Your task to perform on an android device: install app "TextNow: Call + Text Unlimited" Image 0: 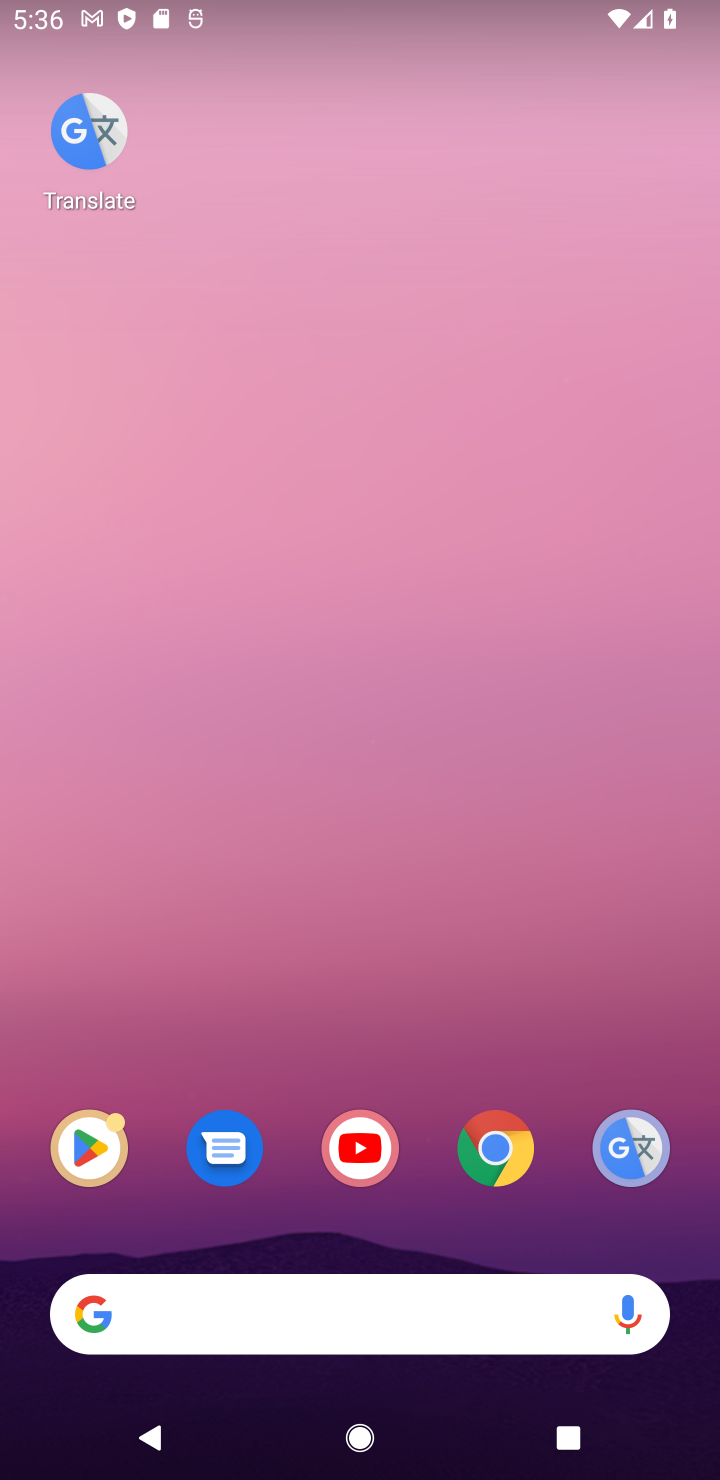
Step 0: drag from (495, 869) to (309, 117)
Your task to perform on an android device: install app "TextNow: Call + Text Unlimited" Image 1: 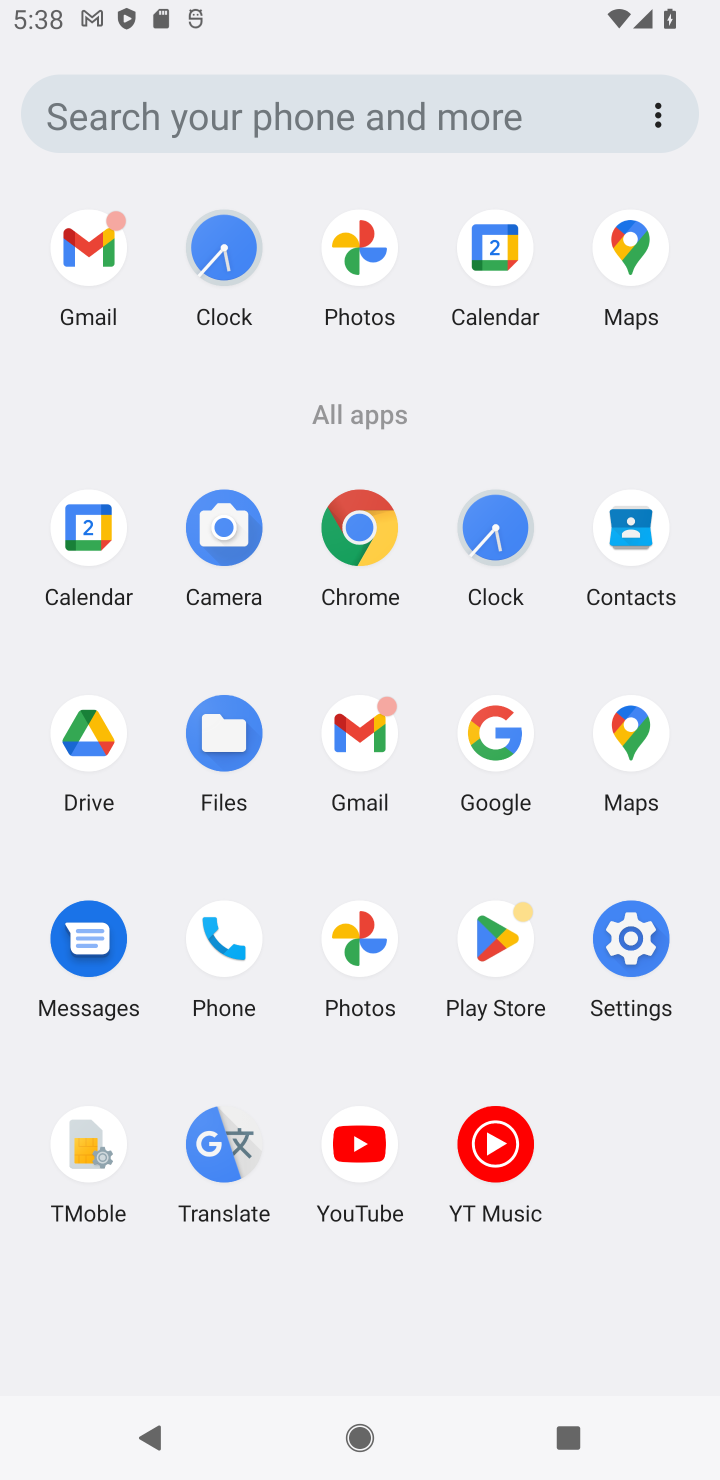
Step 1: click (478, 942)
Your task to perform on an android device: install app "TextNow: Call + Text Unlimited" Image 2: 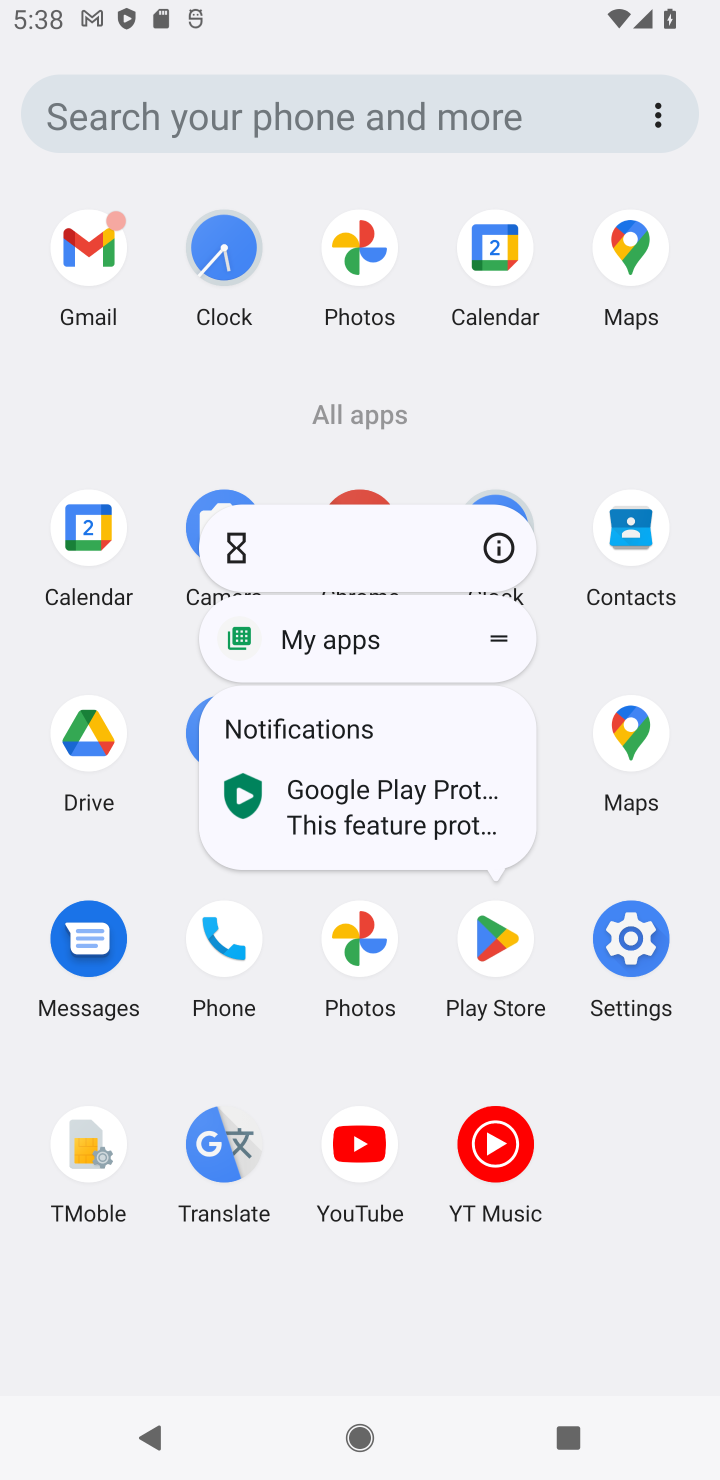
Step 2: click (478, 942)
Your task to perform on an android device: install app "TextNow: Call + Text Unlimited" Image 3: 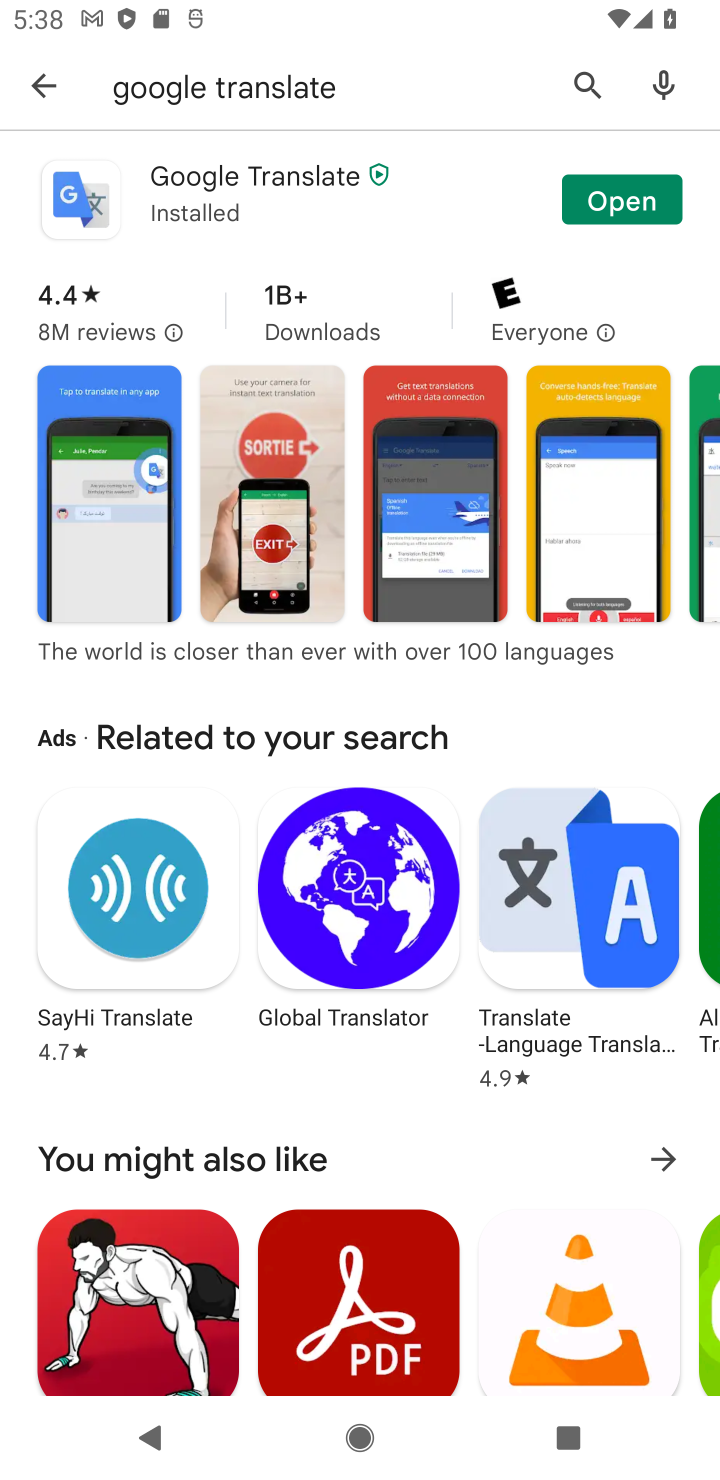
Step 3: press back button
Your task to perform on an android device: install app "TextNow: Call + Text Unlimited" Image 4: 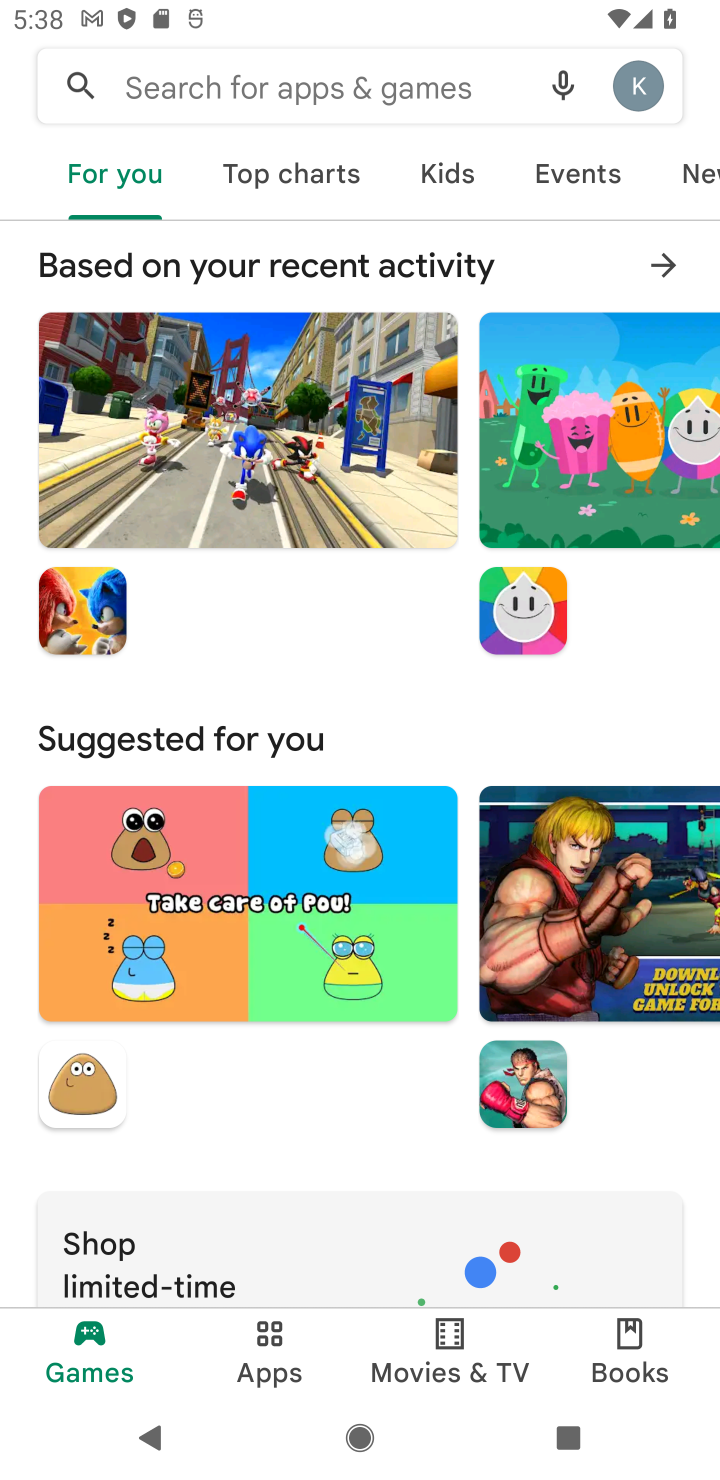
Step 4: click (265, 97)
Your task to perform on an android device: install app "TextNow: Call + Text Unlimited" Image 5: 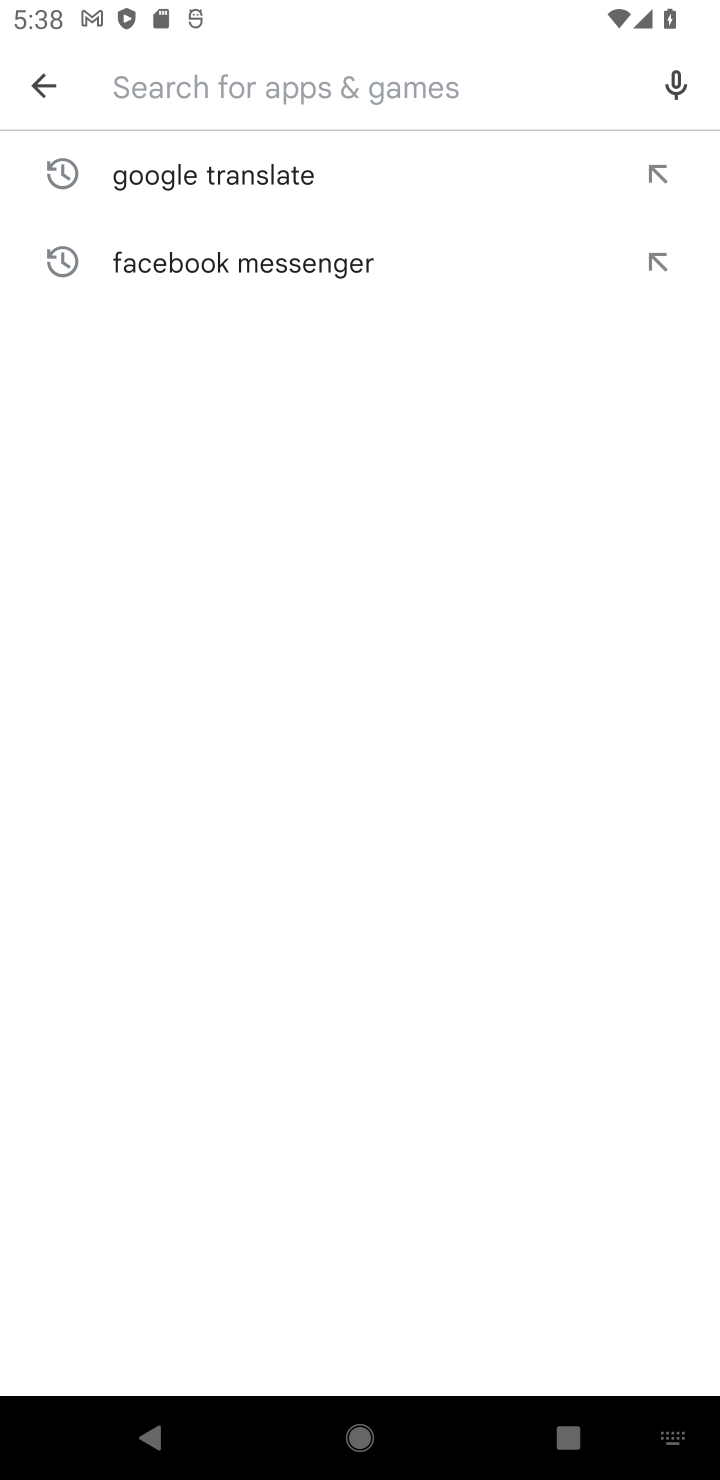
Step 5: type "TextNow: Call + Text Unlimited"
Your task to perform on an android device: install app "TextNow: Call + Text Unlimited" Image 6: 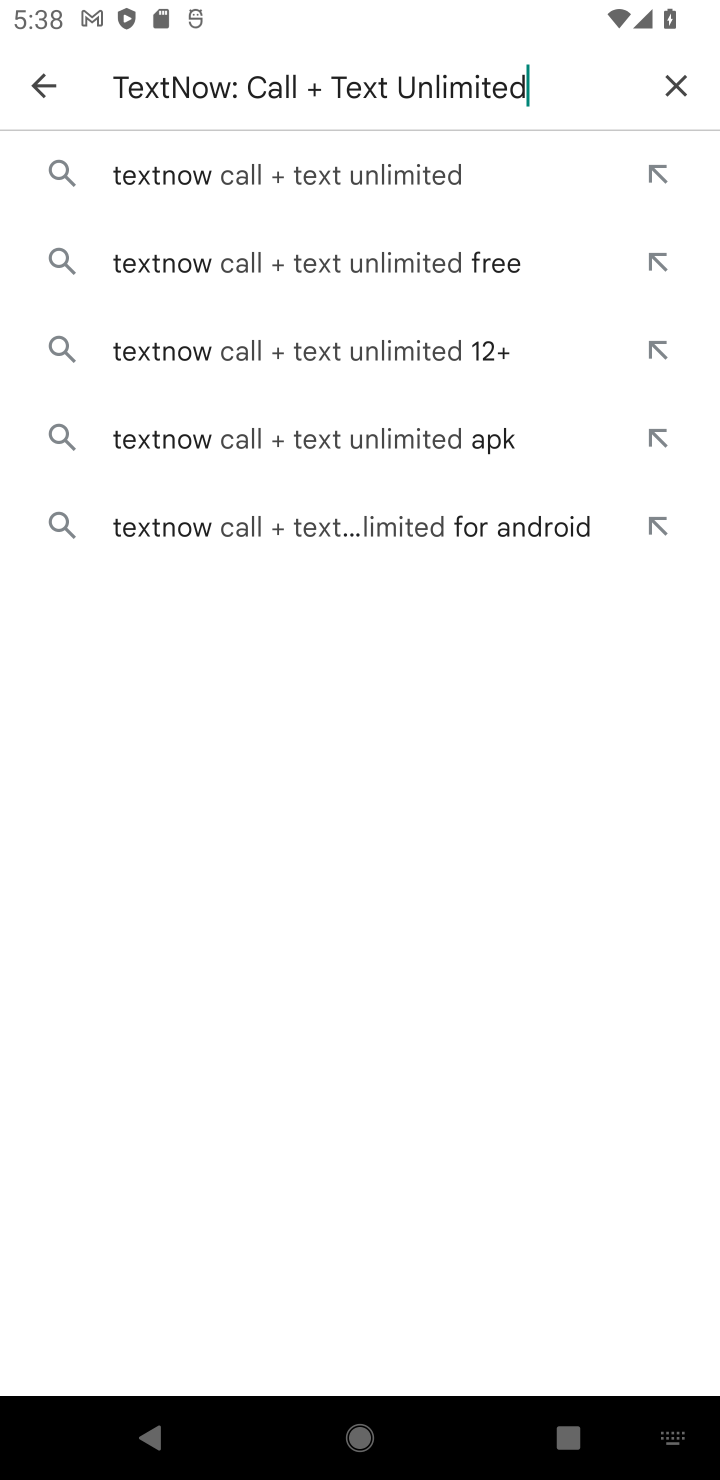
Step 6: click (216, 170)
Your task to perform on an android device: install app "TextNow: Call + Text Unlimited" Image 7: 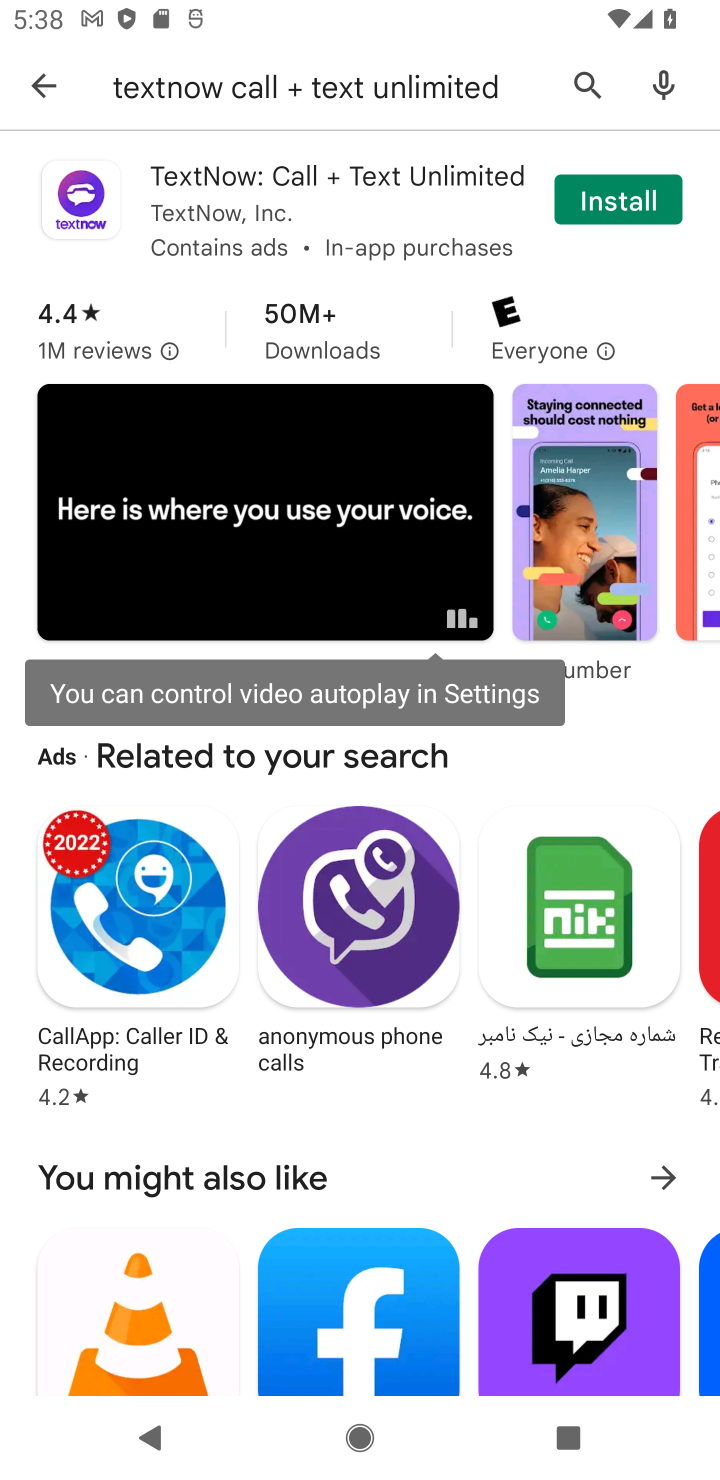
Step 7: click (602, 200)
Your task to perform on an android device: install app "TextNow: Call + Text Unlimited" Image 8: 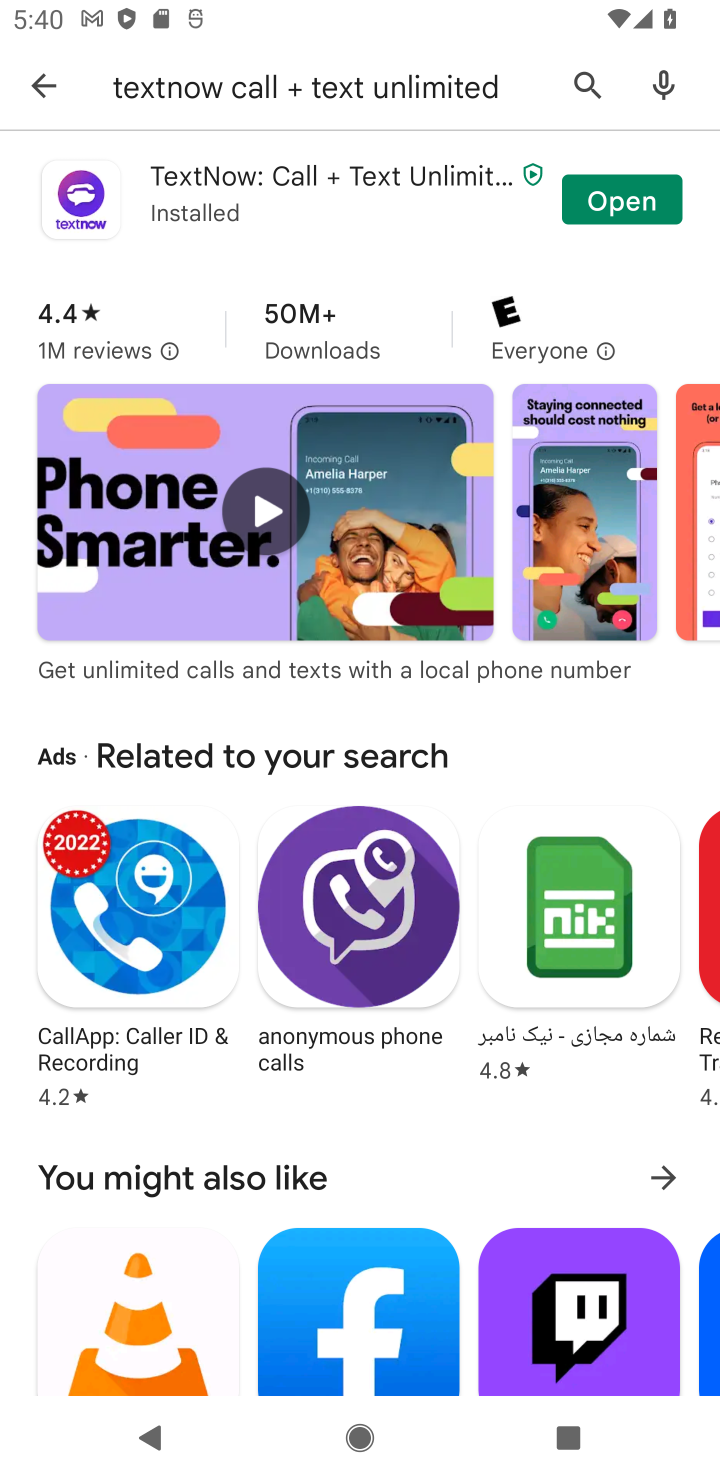
Step 8: task complete